Your task to perform on an android device: Open Yahoo.com Image 0: 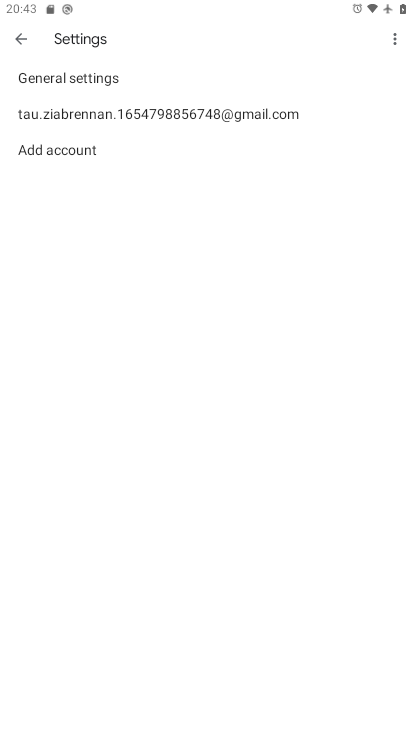
Step 0: press home button
Your task to perform on an android device: Open Yahoo.com Image 1: 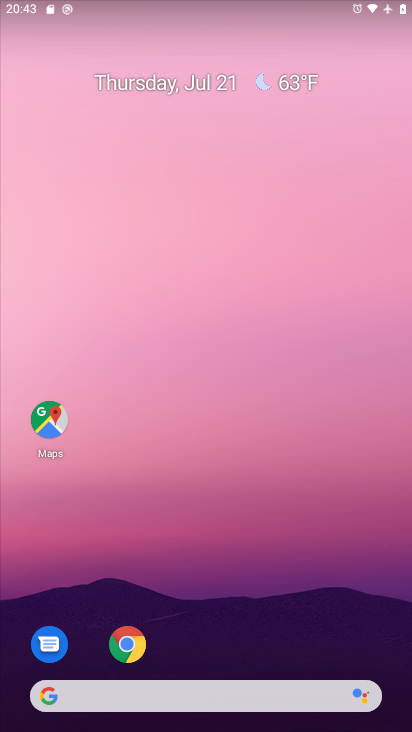
Step 1: click (129, 630)
Your task to perform on an android device: Open Yahoo.com Image 2: 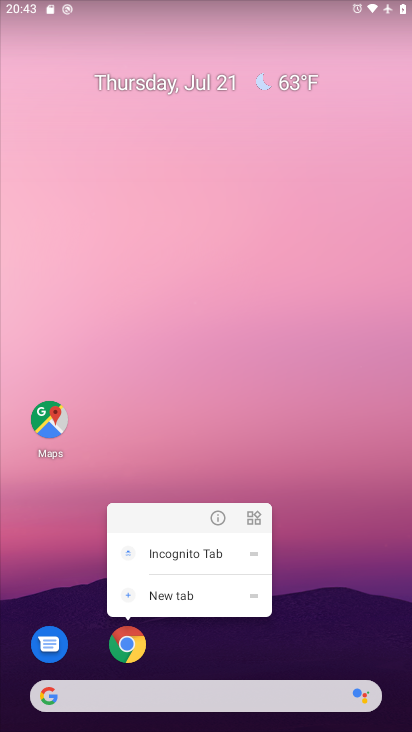
Step 2: click (127, 645)
Your task to perform on an android device: Open Yahoo.com Image 3: 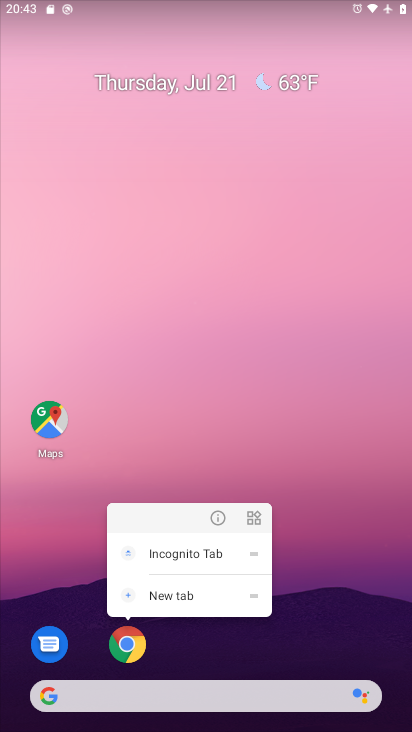
Step 3: click (129, 646)
Your task to perform on an android device: Open Yahoo.com Image 4: 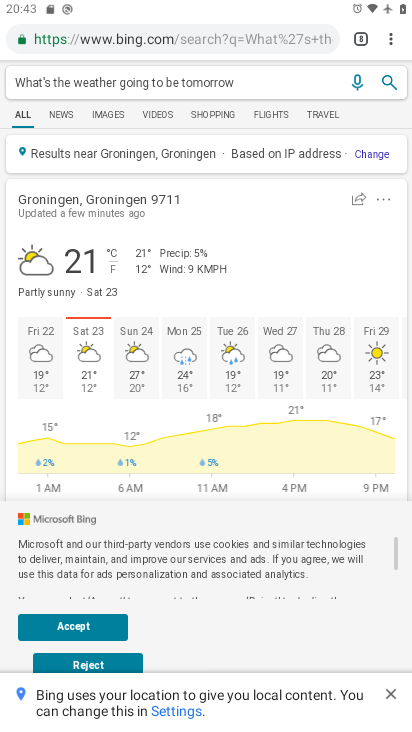
Step 4: click (399, 29)
Your task to perform on an android device: Open Yahoo.com Image 5: 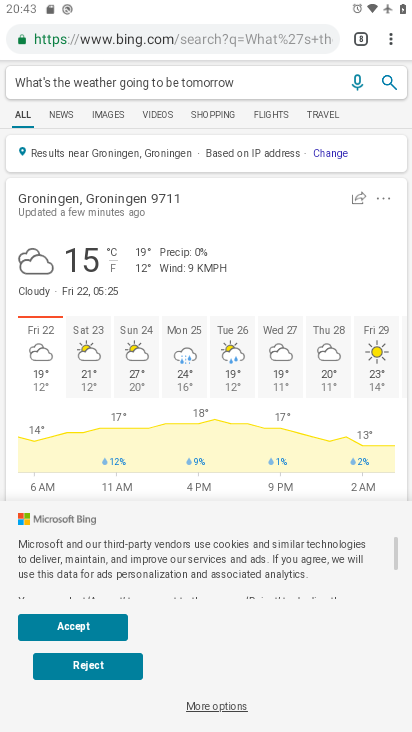
Step 5: click (398, 38)
Your task to perform on an android device: Open Yahoo.com Image 6: 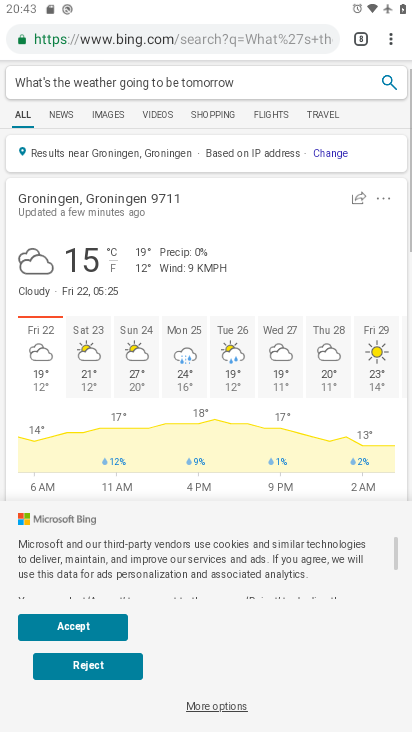
Step 6: click (394, 32)
Your task to perform on an android device: Open Yahoo.com Image 7: 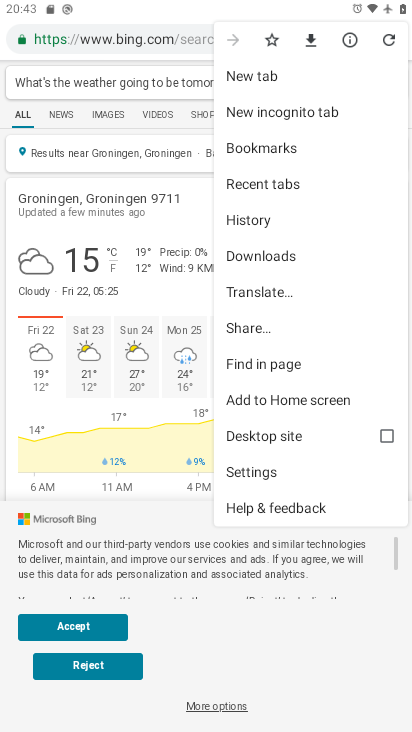
Step 7: click (260, 74)
Your task to perform on an android device: Open Yahoo.com Image 8: 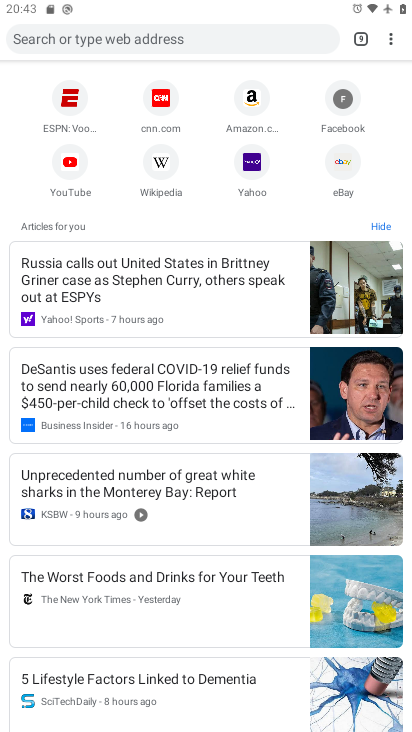
Step 8: click (239, 156)
Your task to perform on an android device: Open Yahoo.com Image 9: 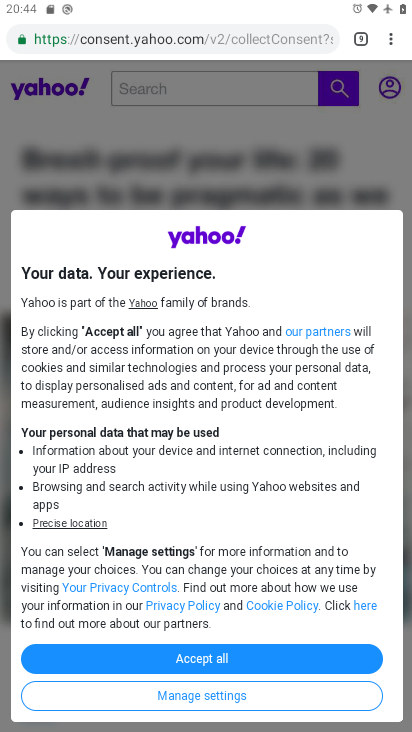
Step 9: task complete